Your task to perform on an android device: Open internet settings Image 0: 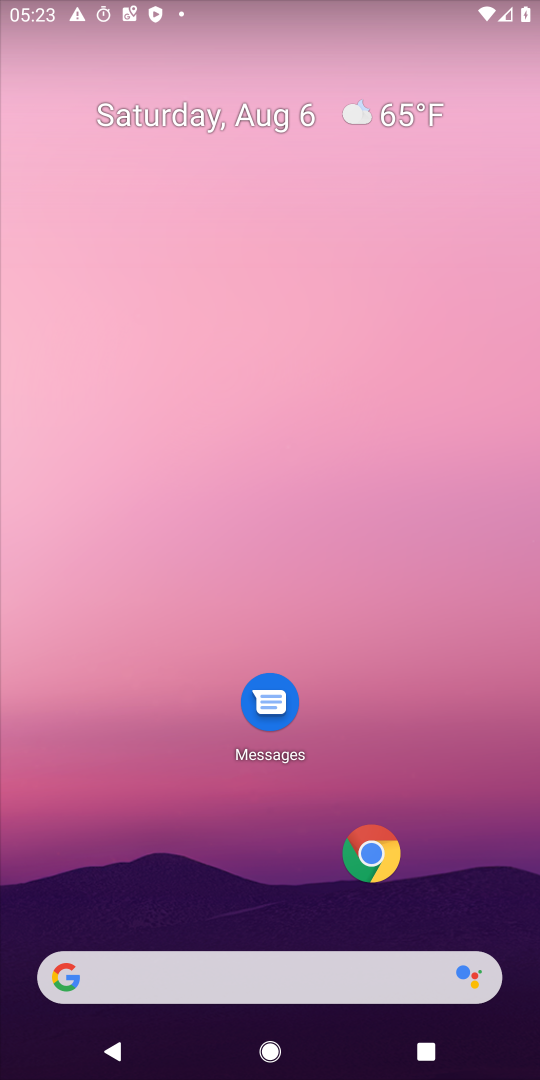
Step 0: drag from (202, 859) to (197, 124)
Your task to perform on an android device: Open internet settings Image 1: 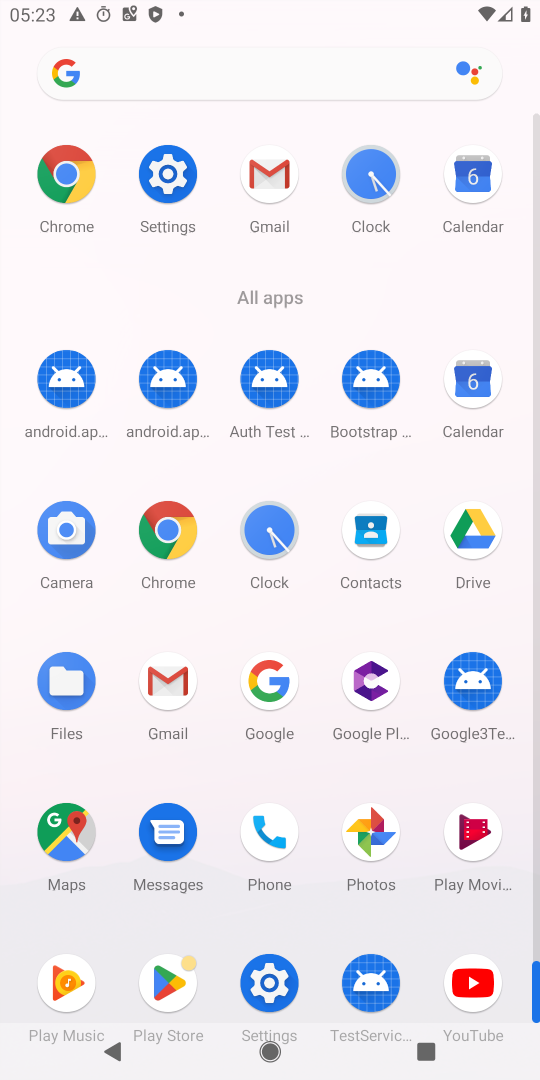
Step 1: click (154, 177)
Your task to perform on an android device: Open internet settings Image 2: 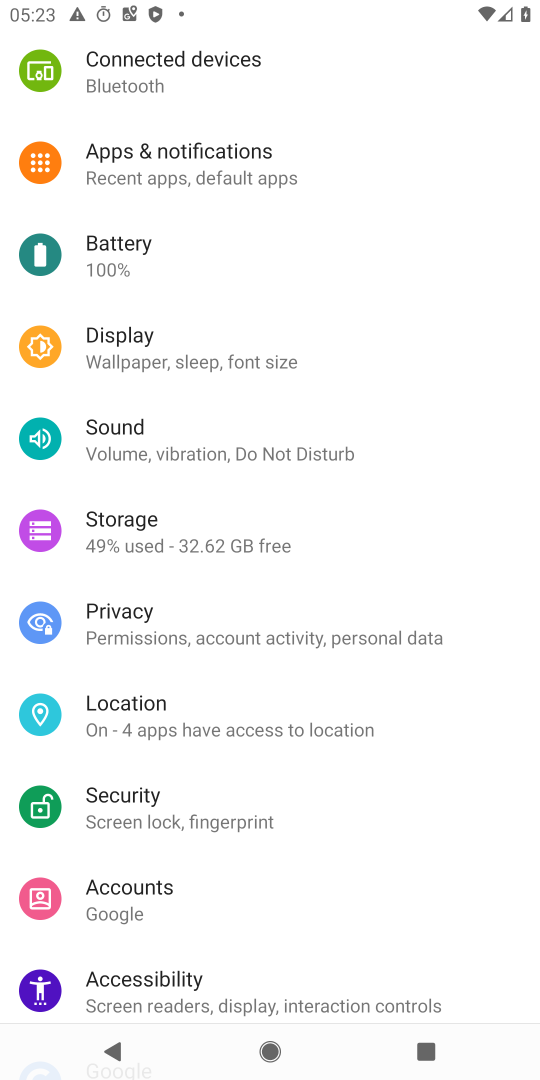
Step 2: drag from (201, 123) to (248, 610)
Your task to perform on an android device: Open internet settings Image 3: 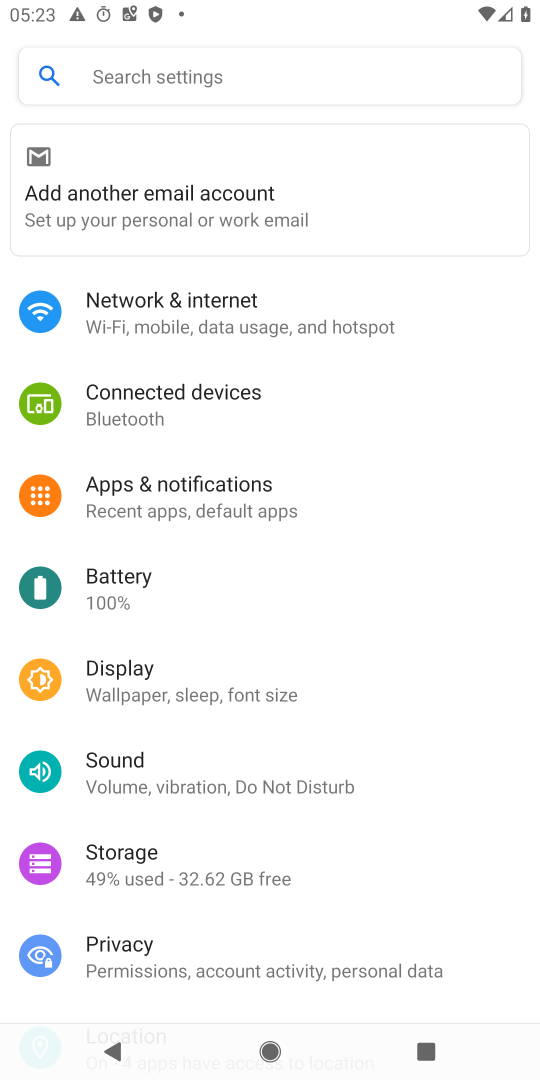
Step 3: click (153, 300)
Your task to perform on an android device: Open internet settings Image 4: 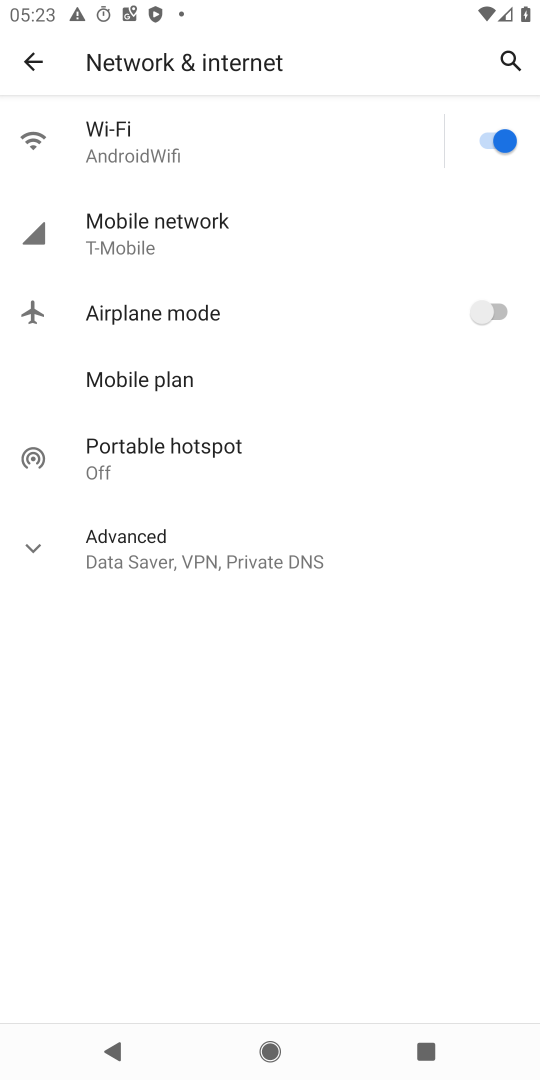
Step 4: click (149, 145)
Your task to perform on an android device: Open internet settings Image 5: 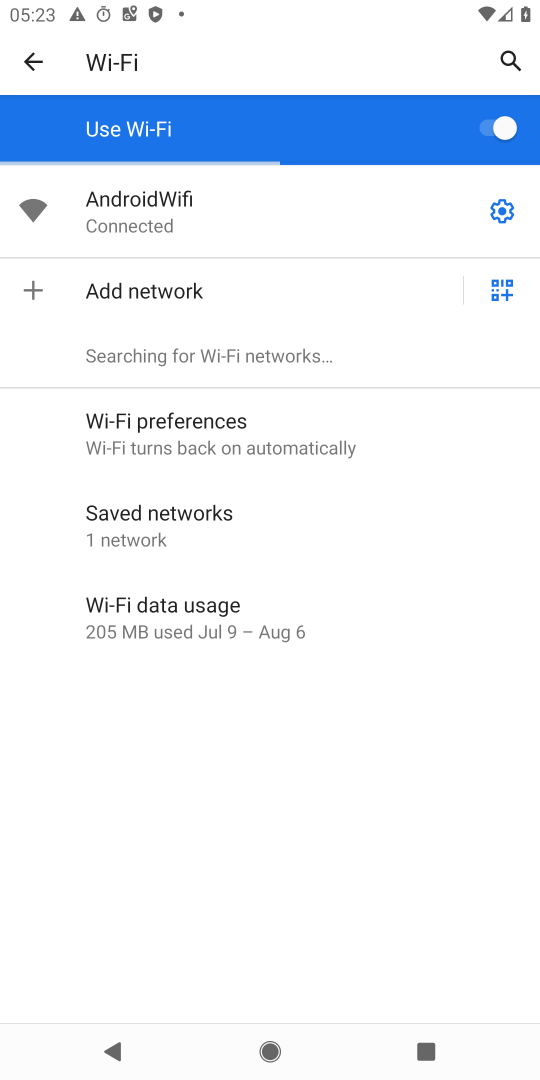
Step 5: click (28, 56)
Your task to perform on an android device: Open internet settings Image 6: 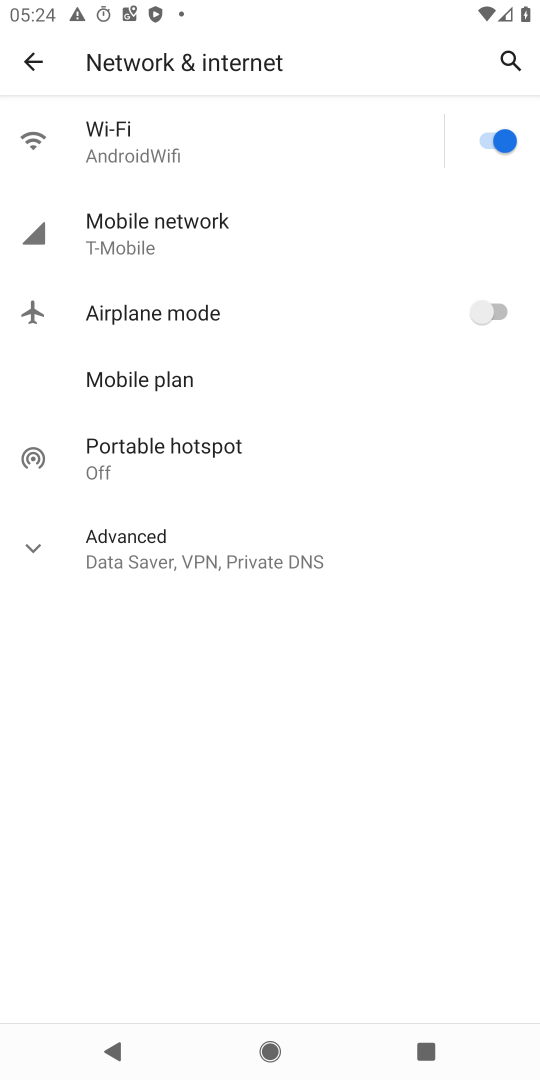
Step 6: click (231, 550)
Your task to perform on an android device: Open internet settings Image 7: 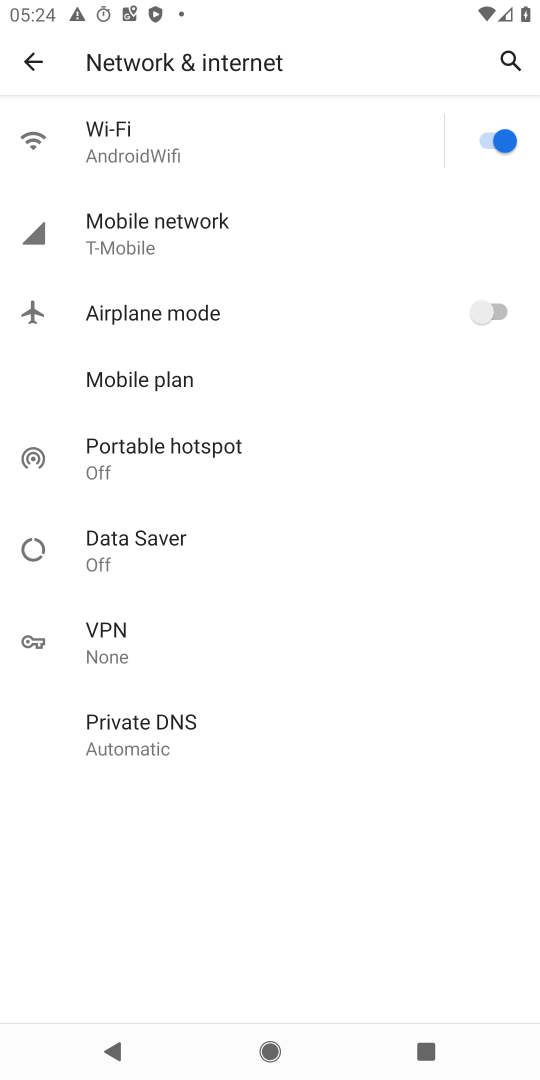
Step 7: task complete